Your task to perform on an android device: turn vacation reply on in the gmail app Image 0: 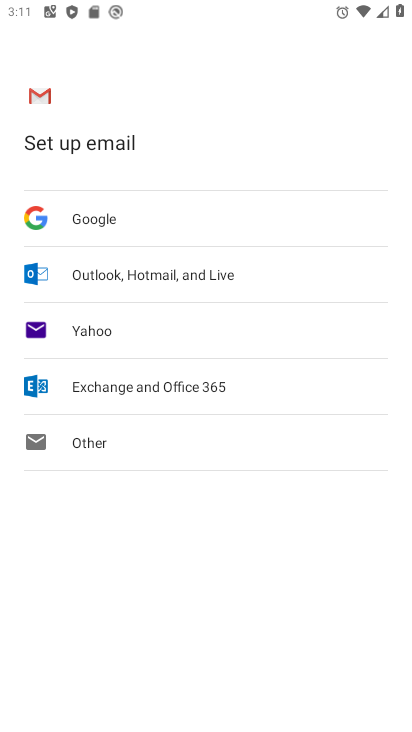
Step 0: press home button
Your task to perform on an android device: turn vacation reply on in the gmail app Image 1: 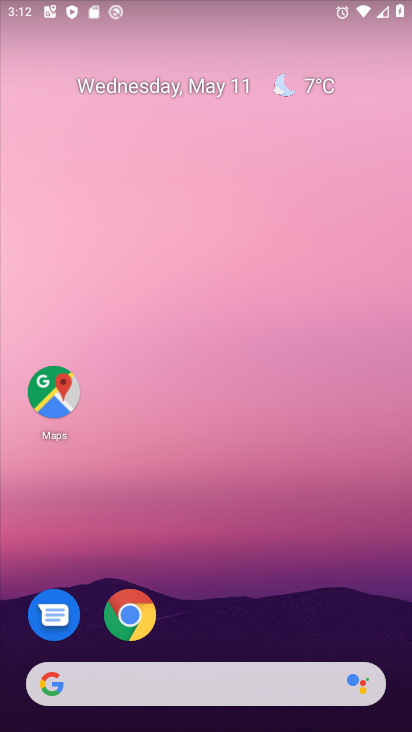
Step 1: drag from (328, 573) to (274, 112)
Your task to perform on an android device: turn vacation reply on in the gmail app Image 2: 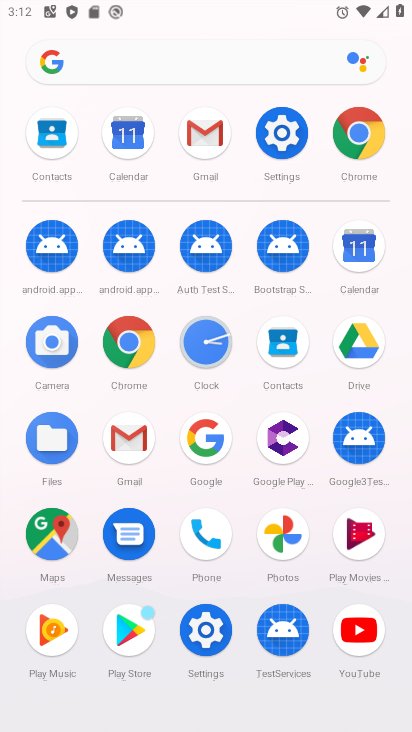
Step 2: click (221, 142)
Your task to perform on an android device: turn vacation reply on in the gmail app Image 3: 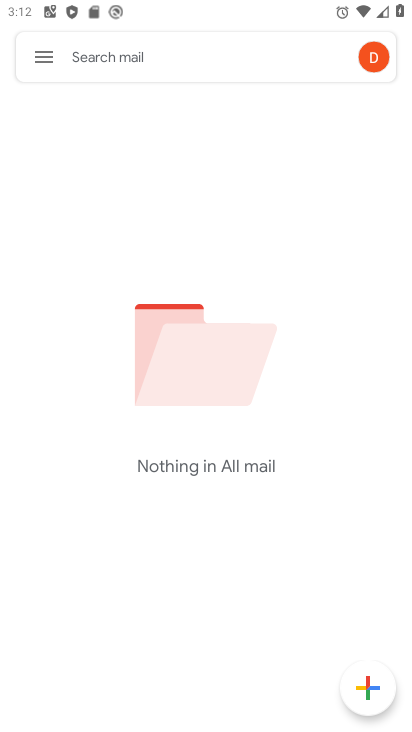
Step 3: click (363, 53)
Your task to perform on an android device: turn vacation reply on in the gmail app Image 4: 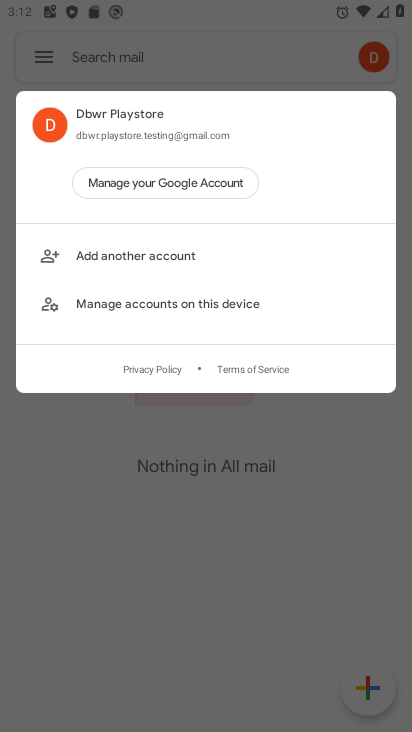
Step 4: click (93, 64)
Your task to perform on an android device: turn vacation reply on in the gmail app Image 5: 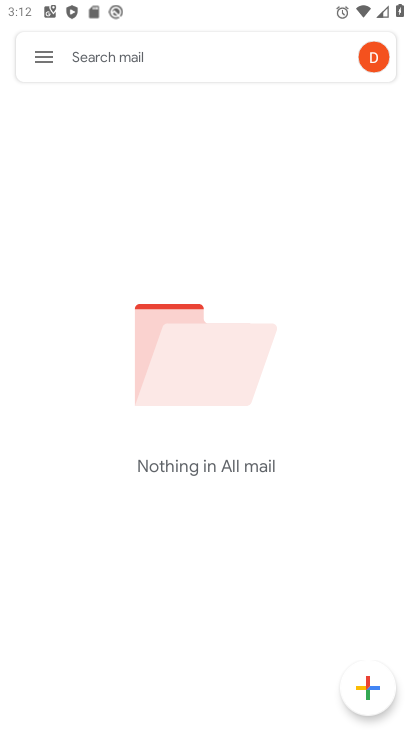
Step 5: click (50, 59)
Your task to perform on an android device: turn vacation reply on in the gmail app Image 6: 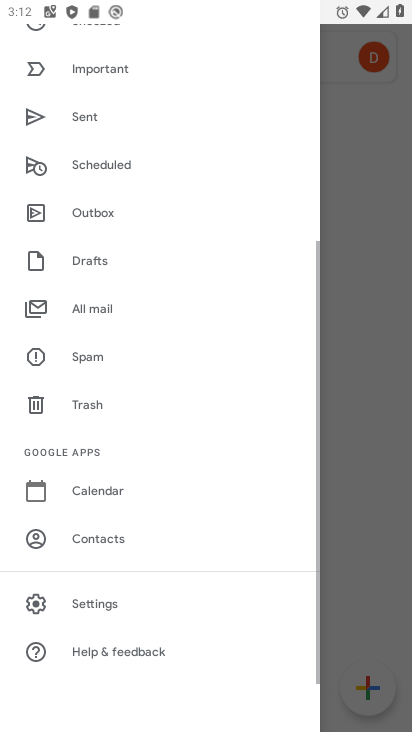
Step 6: click (95, 600)
Your task to perform on an android device: turn vacation reply on in the gmail app Image 7: 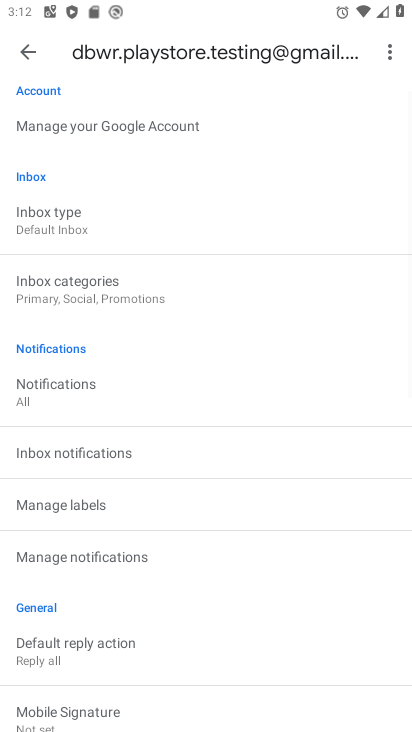
Step 7: drag from (232, 648) to (260, 60)
Your task to perform on an android device: turn vacation reply on in the gmail app Image 8: 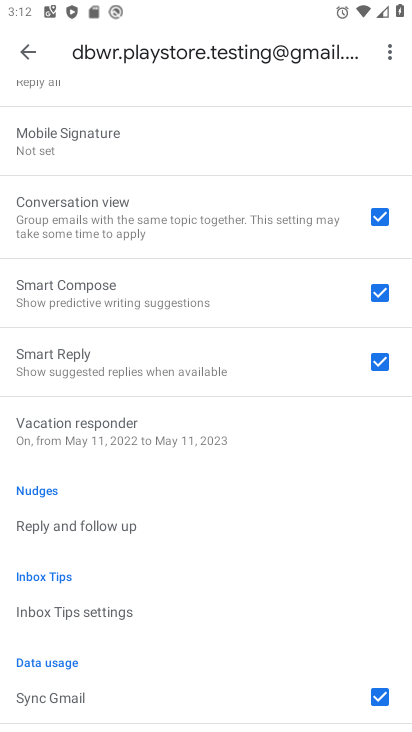
Step 8: click (265, 424)
Your task to perform on an android device: turn vacation reply on in the gmail app Image 9: 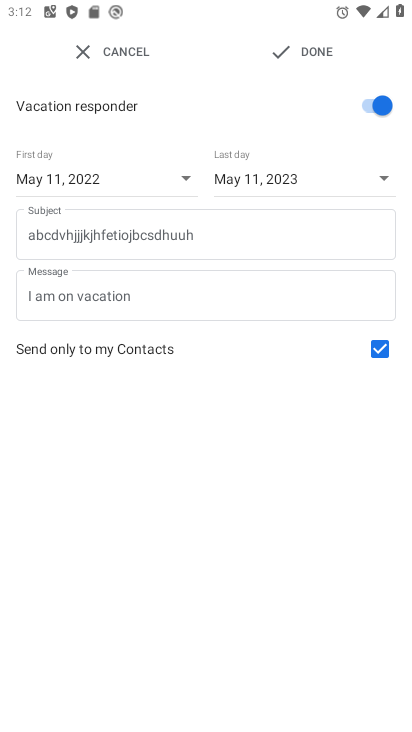
Step 9: task complete